Your task to perform on an android device: clear history in the chrome app Image 0: 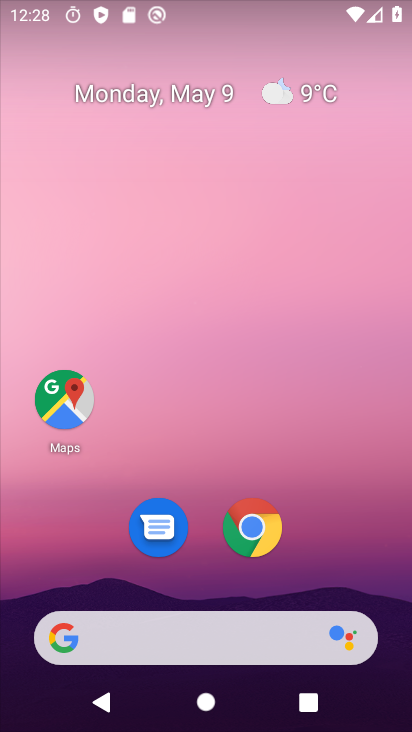
Step 0: click (249, 533)
Your task to perform on an android device: clear history in the chrome app Image 1: 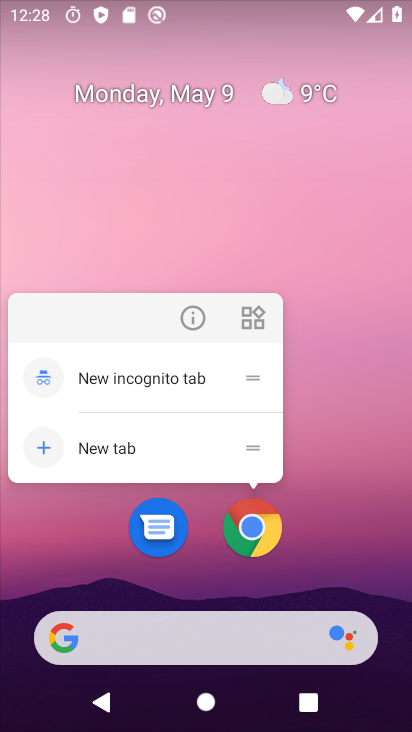
Step 1: click (248, 528)
Your task to perform on an android device: clear history in the chrome app Image 2: 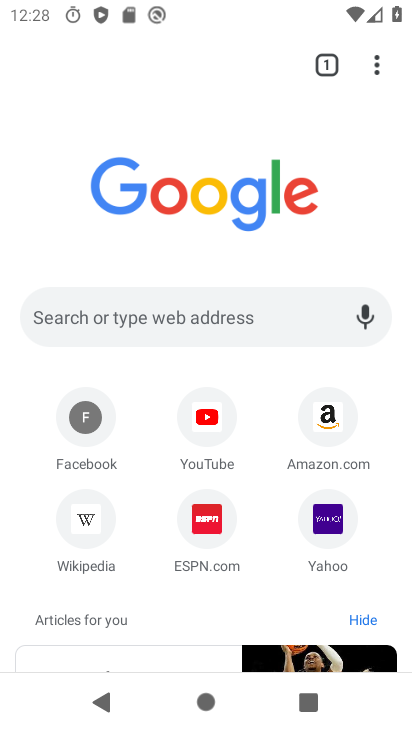
Step 2: drag from (374, 57) to (143, 363)
Your task to perform on an android device: clear history in the chrome app Image 3: 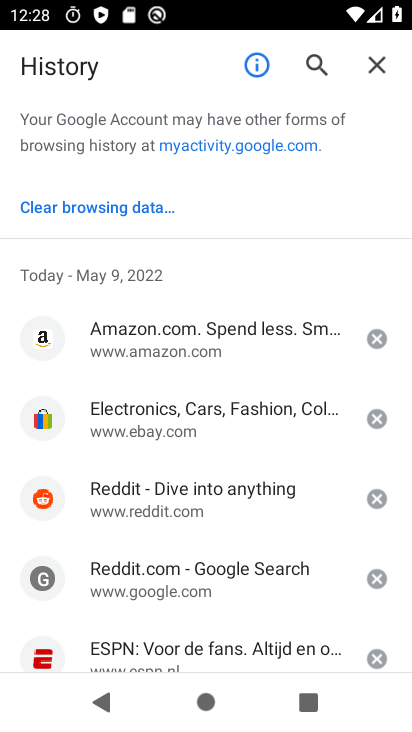
Step 3: click (83, 207)
Your task to perform on an android device: clear history in the chrome app Image 4: 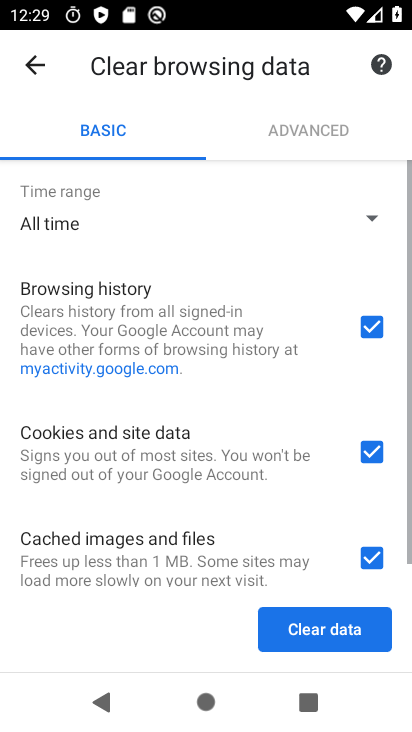
Step 4: click (336, 635)
Your task to perform on an android device: clear history in the chrome app Image 5: 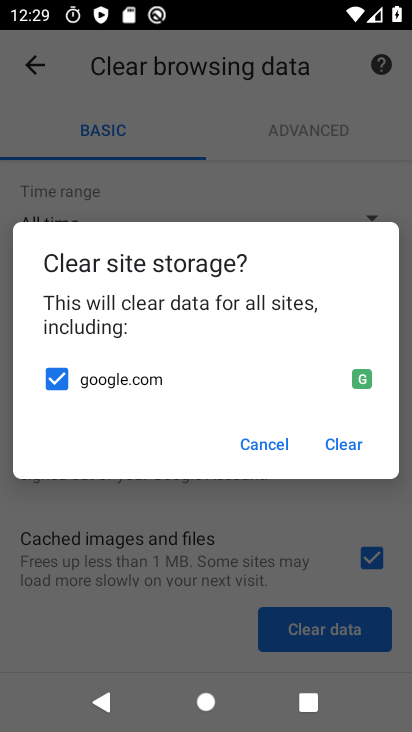
Step 5: click (358, 450)
Your task to perform on an android device: clear history in the chrome app Image 6: 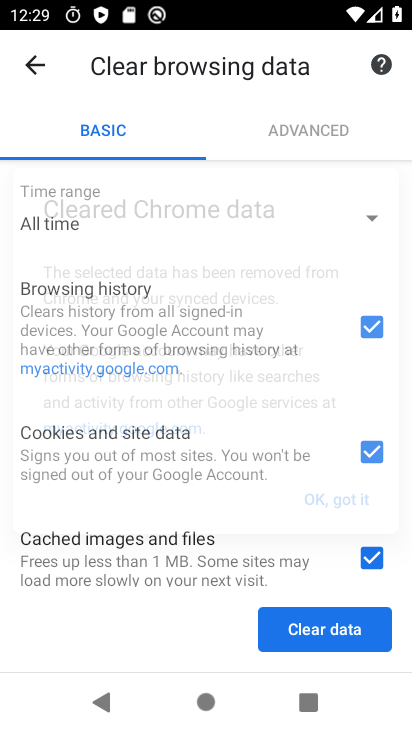
Step 6: task complete